Your task to perform on an android device: Open the map Image 0: 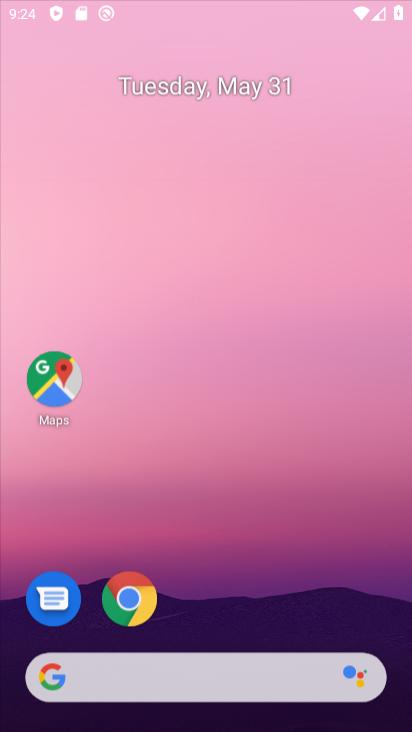
Step 0: click (176, 71)
Your task to perform on an android device: Open the map Image 1: 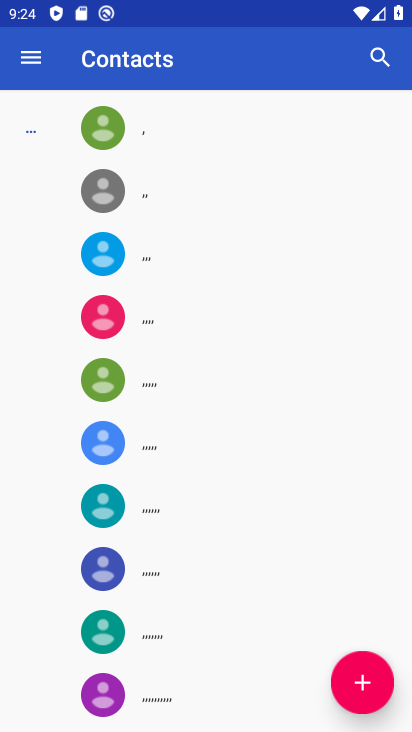
Step 1: press back button
Your task to perform on an android device: Open the map Image 2: 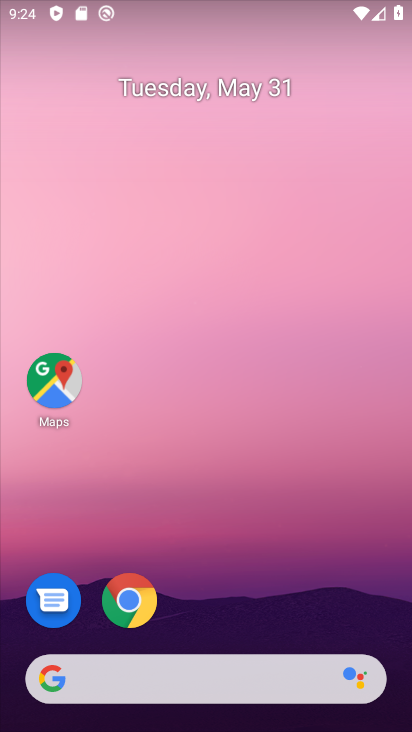
Step 2: drag from (235, 618) to (173, 277)
Your task to perform on an android device: Open the map Image 3: 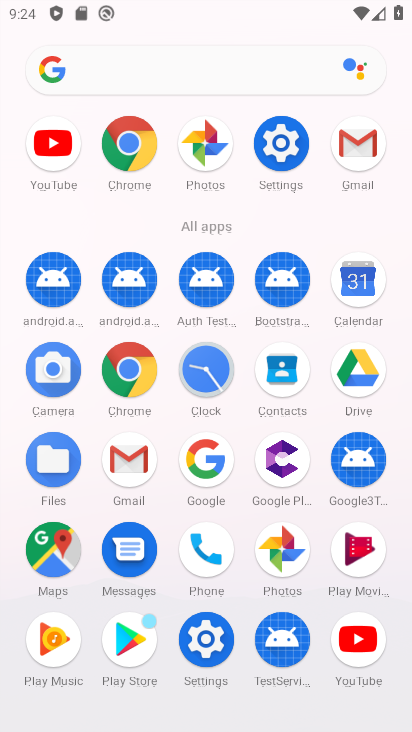
Step 3: click (269, 186)
Your task to perform on an android device: Open the map Image 4: 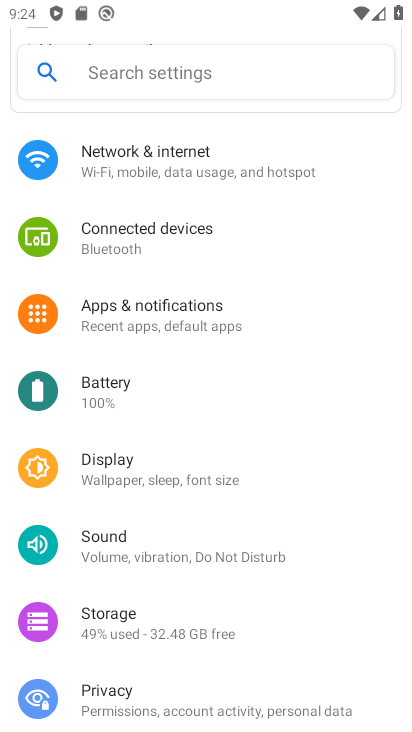
Step 4: click (191, 171)
Your task to perform on an android device: Open the map Image 5: 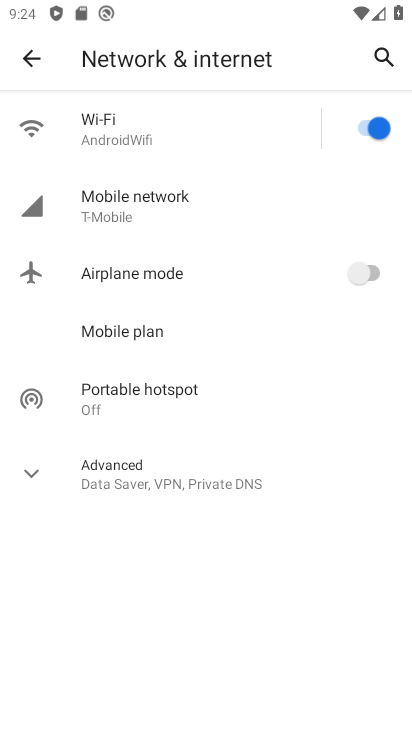
Step 5: task complete